Your task to perform on an android device: What is the news today? Image 0: 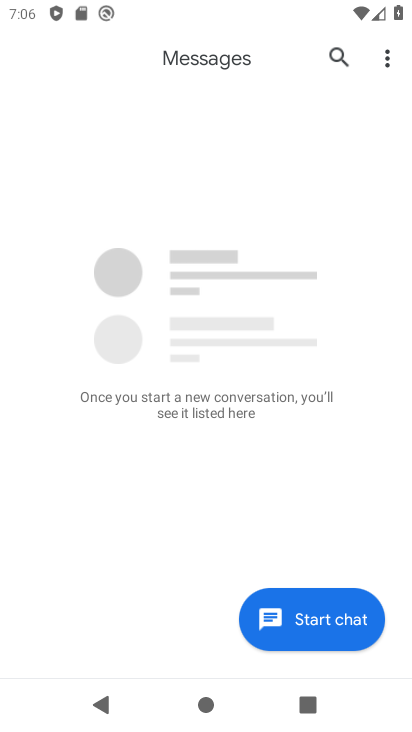
Step 0: press home button
Your task to perform on an android device: What is the news today? Image 1: 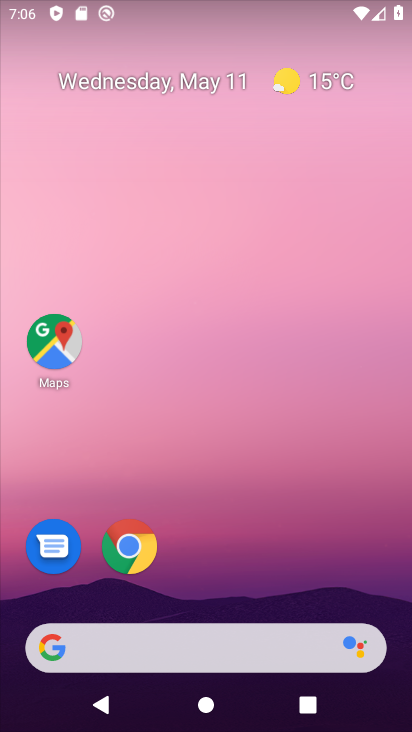
Step 1: task complete